Your task to perform on an android device: Open the Play Movies app and select the watchlist tab. Image 0: 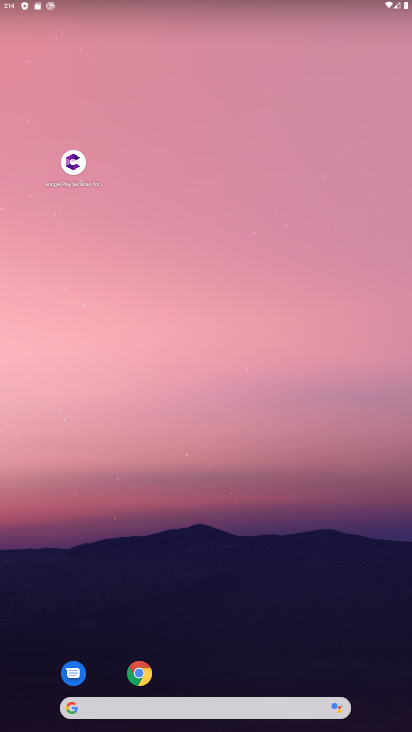
Step 0: drag from (380, 678) to (328, 269)
Your task to perform on an android device: Open the Play Movies app and select the watchlist tab. Image 1: 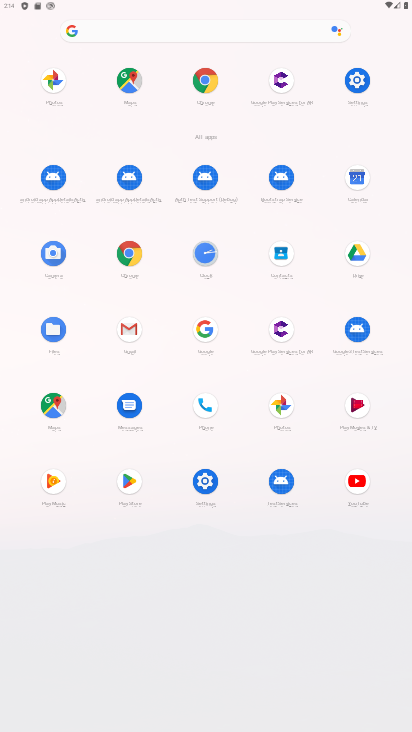
Step 1: click (356, 404)
Your task to perform on an android device: Open the Play Movies app and select the watchlist tab. Image 2: 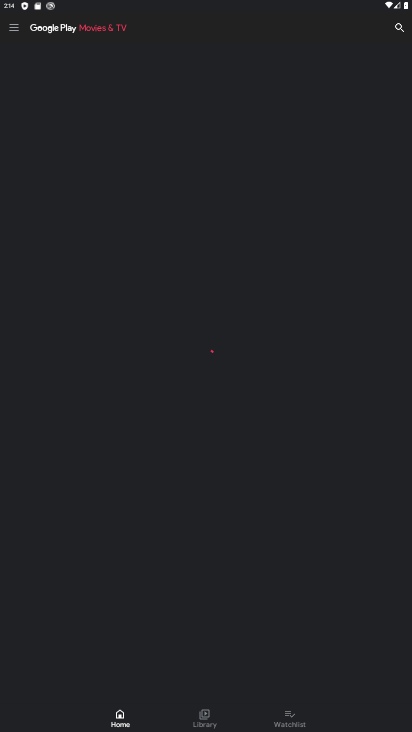
Step 2: click (287, 715)
Your task to perform on an android device: Open the Play Movies app and select the watchlist tab. Image 3: 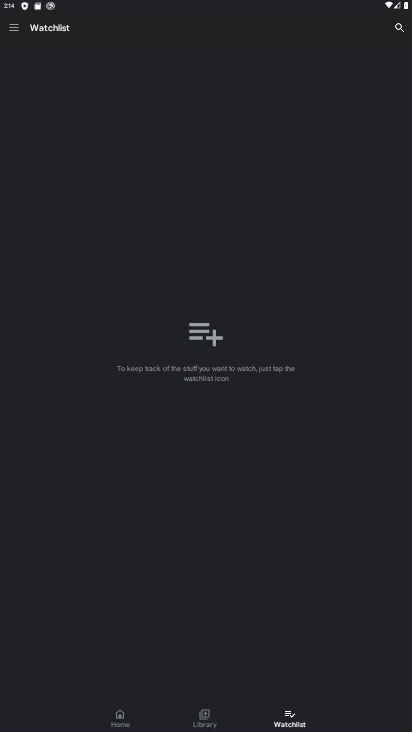
Step 3: task complete